Your task to perform on an android device: Clear the shopping cart on target. Search for rayovac triple a on target, select the first entry, add it to the cart, then select checkout. Image 0: 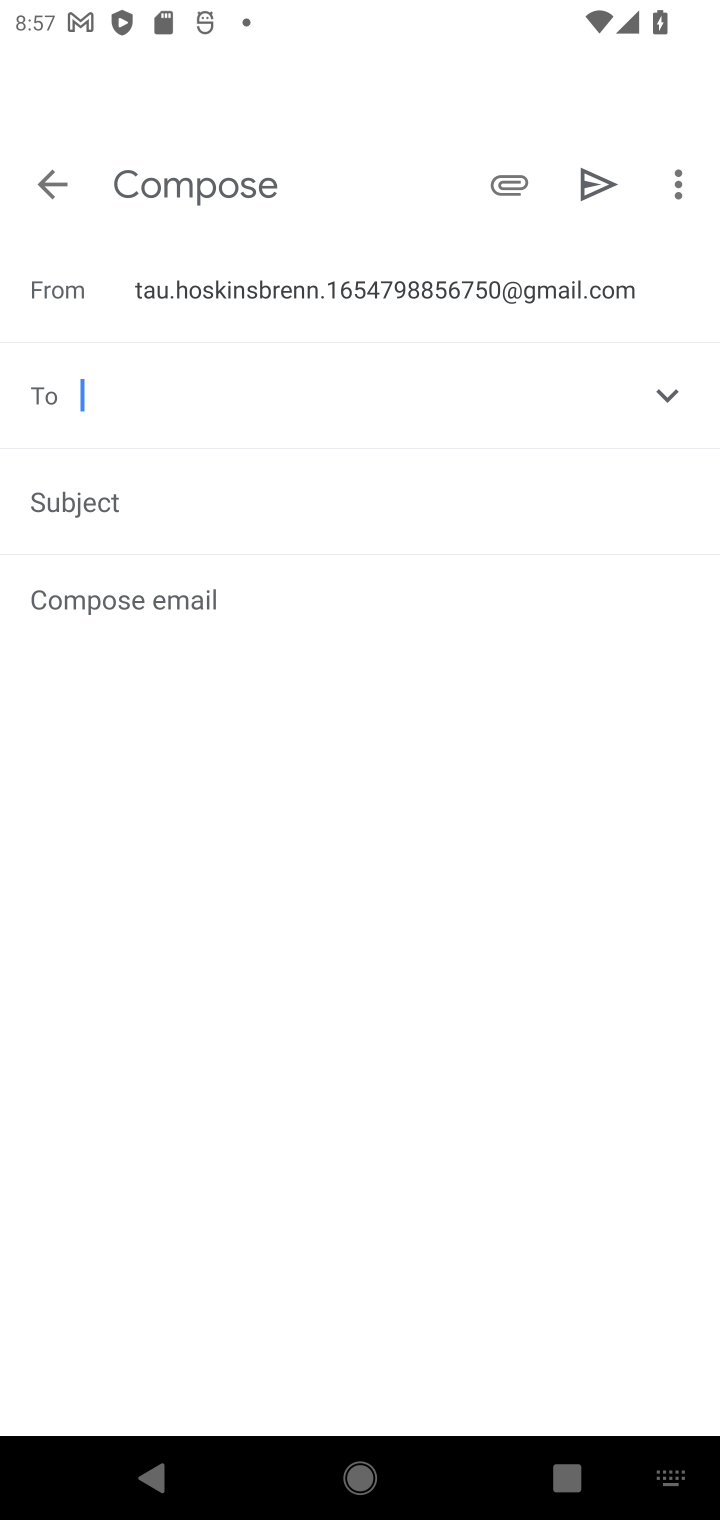
Step 0: task complete